Your task to perform on an android device: What's the weather going to be this weekend? Image 0: 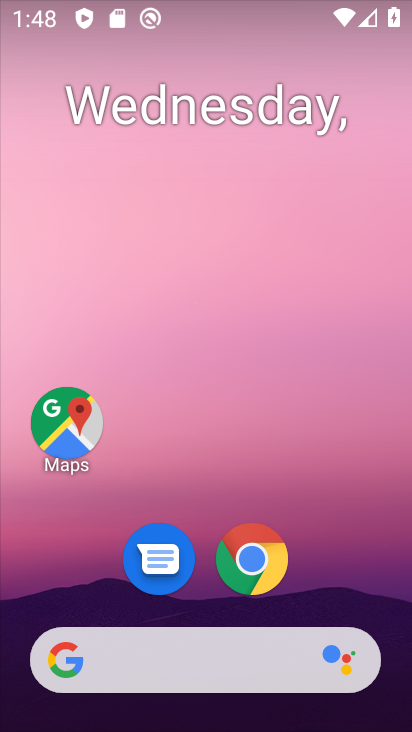
Step 0: drag from (318, 583) to (288, 327)
Your task to perform on an android device: What's the weather going to be this weekend? Image 1: 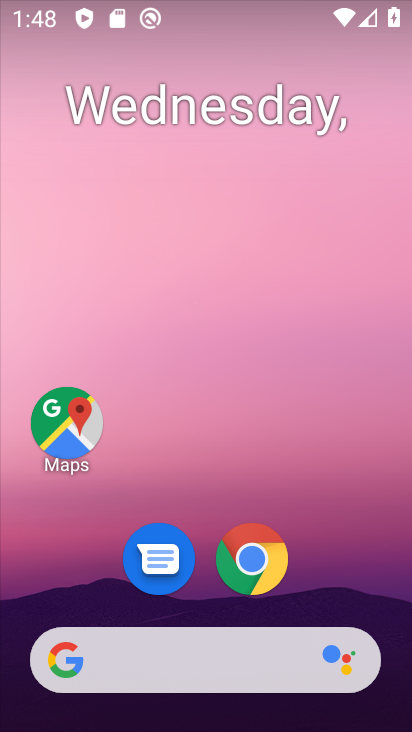
Step 1: drag from (325, 562) to (262, 163)
Your task to perform on an android device: What's the weather going to be this weekend? Image 2: 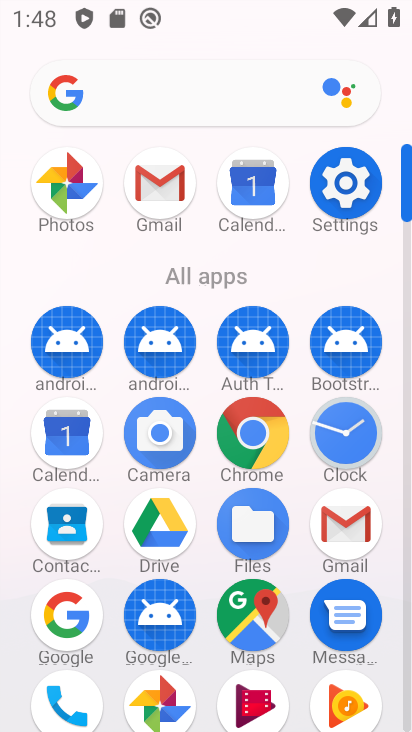
Step 2: click (61, 616)
Your task to perform on an android device: What's the weather going to be this weekend? Image 3: 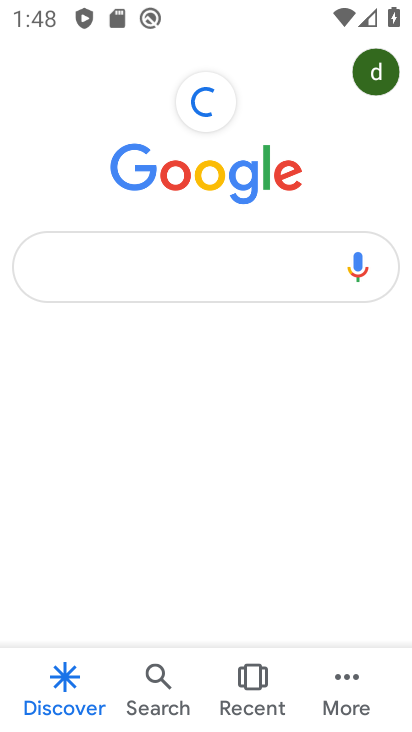
Step 3: click (180, 269)
Your task to perform on an android device: What's the weather going to be this weekend? Image 4: 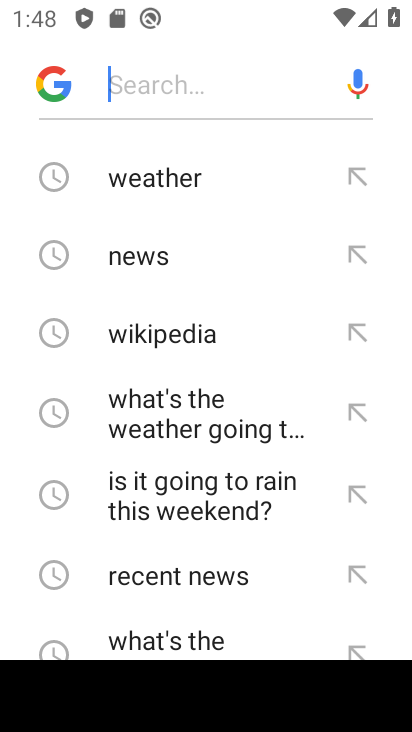
Step 4: type "What's the weather going to be this weekend?"
Your task to perform on an android device: What's the weather going to be this weekend? Image 5: 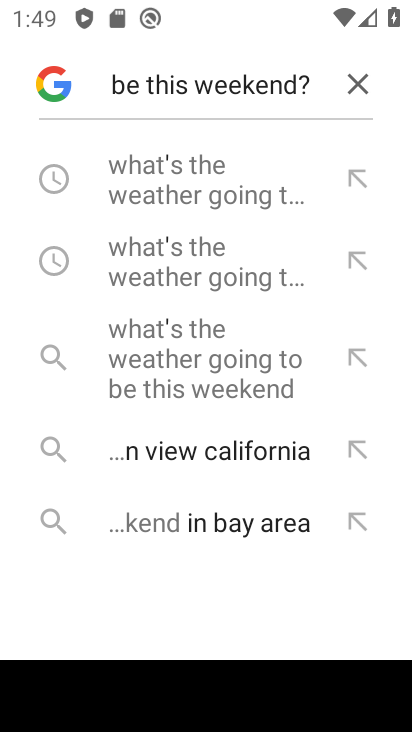
Step 5: click (223, 196)
Your task to perform on an android device: What's the weather going to be this weekend? Image 6: 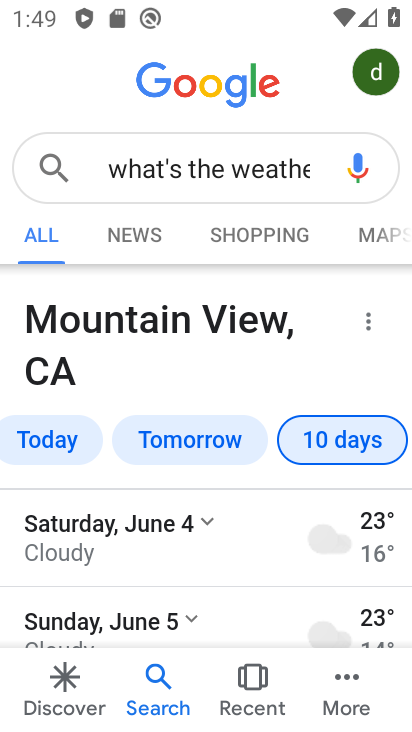
Step 6: task complete